Your task to perform on an android device: open sync settings in chrome Image 0: 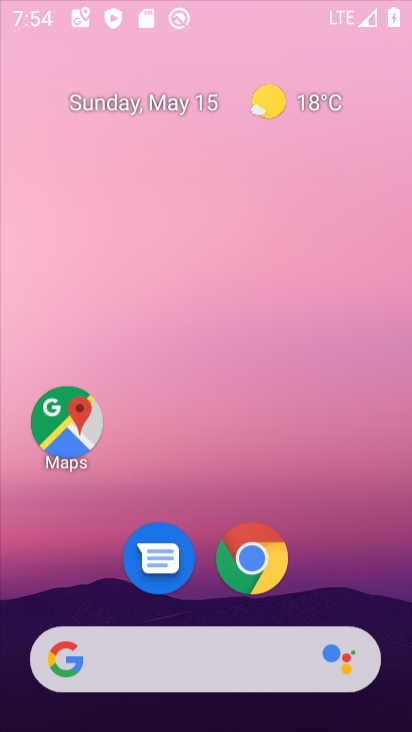
Step 0: drag from (331, 536) to (206, 178)
Your task to perform on an android device: open sync settings in chrome Image 1: 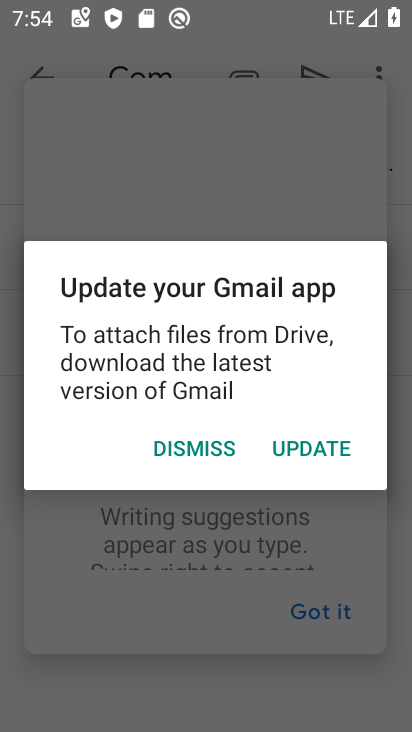
Step 1: press home button
Your task to perform on an android device: open sync settings in chrome Image 2: 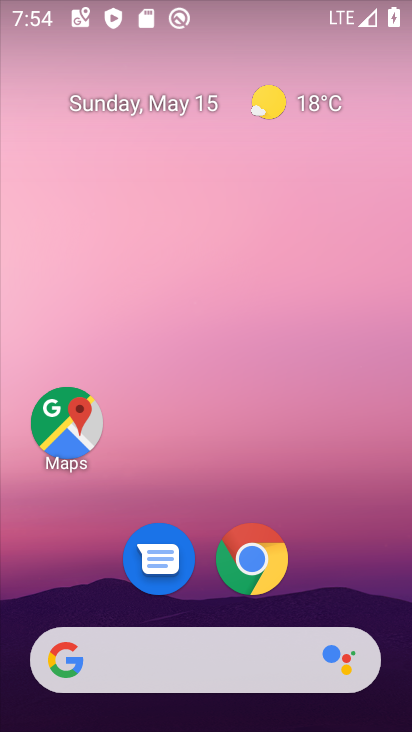
Step 2: click (255, 559)
Your task to perform on an android device: open sync settings in chrome Image 3: 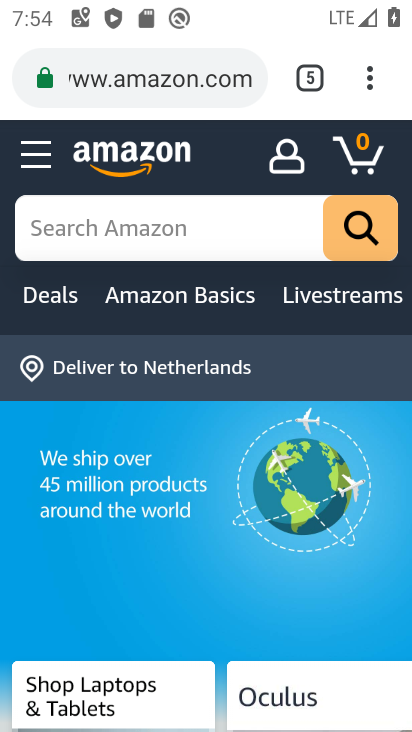
Step 3: click (367, 88)
Your task to perform on an android device: open sync settings in chrome Image 4: 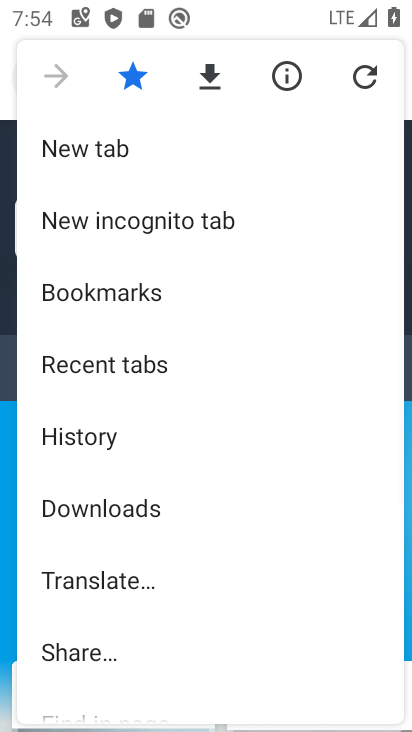
Step 4: drag from (288, 568) to (209, 285)
Your task to perform on an android device: open sync settings in chrome Image 5: 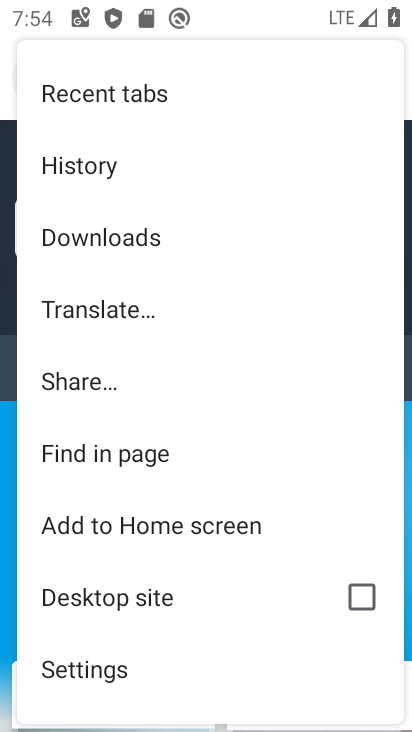
Step 5: click (107, 666)
Your task to perform on an android device: open sync settings in chrome Image 6: 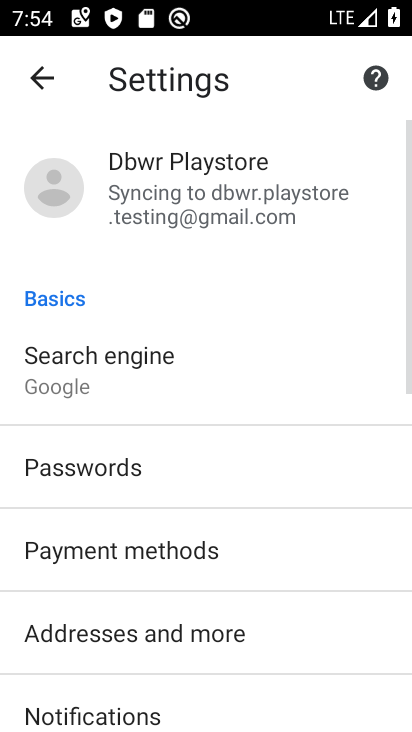
Step 6: click (178, 178)
Your task to perform on an android device: open sync settings in chrome Image 7: 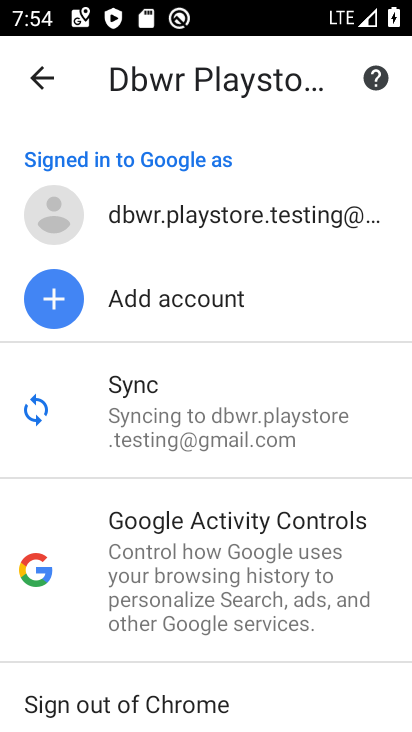
Step 7: click (156, 403)
Your task to perform on an android device: open sync settings in chrome Image 8: 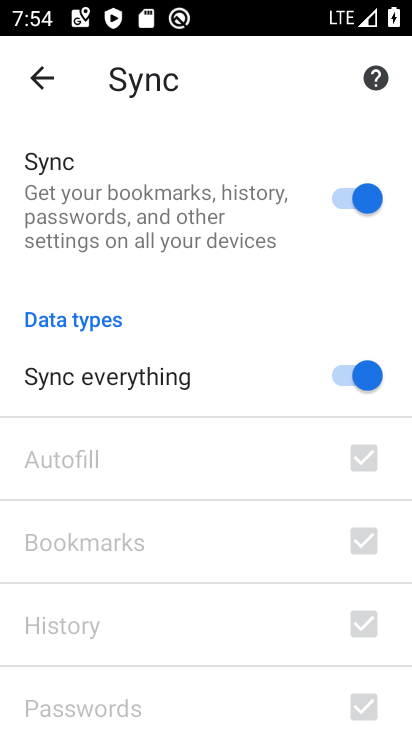
Step 8: task complete